Your task to perform on an android device: Open CNN.com Image 0: 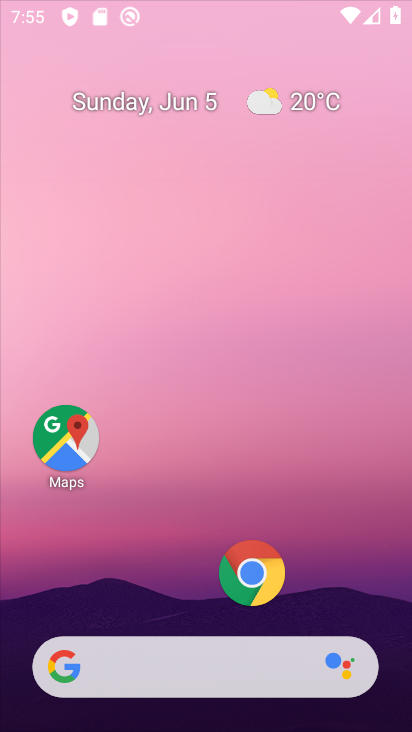
Step 0: click (202, 441)
Your task to perform on an android device: Open CNN.com Image 1: 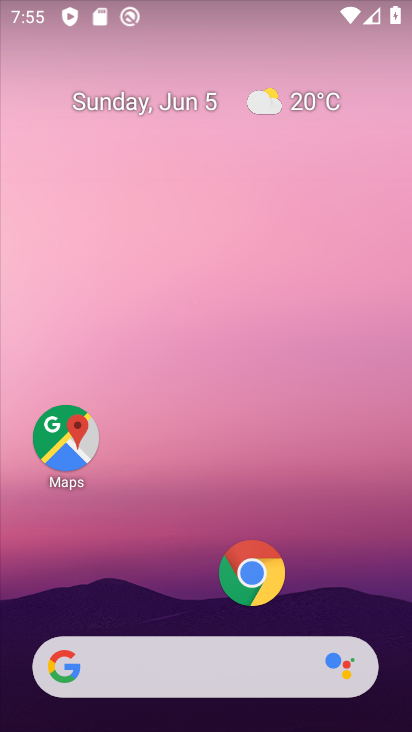
Step 1: click (255, 579)
Your task to perform on an android device: Open CNN.com Image 2: 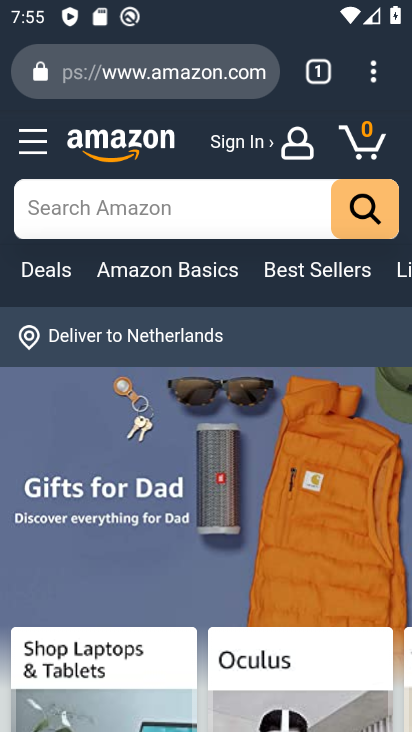
Step 2: click (320, 69)
Your task to perform on an android device: Open CNN.com Image 3: 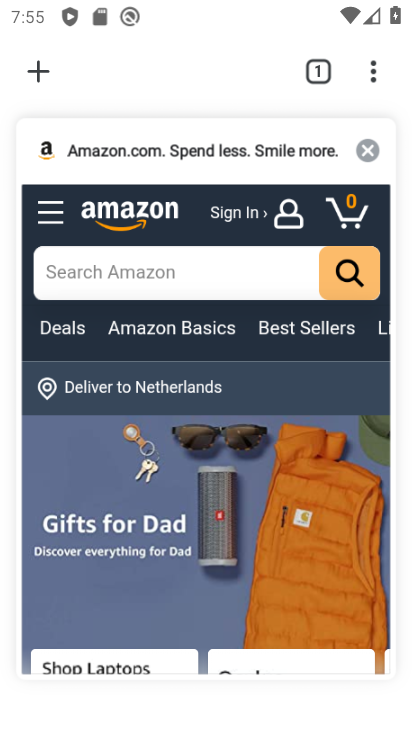
Step 3: click (367, 159)
Your task to perform on an android device: Open CNN.com Image 4: 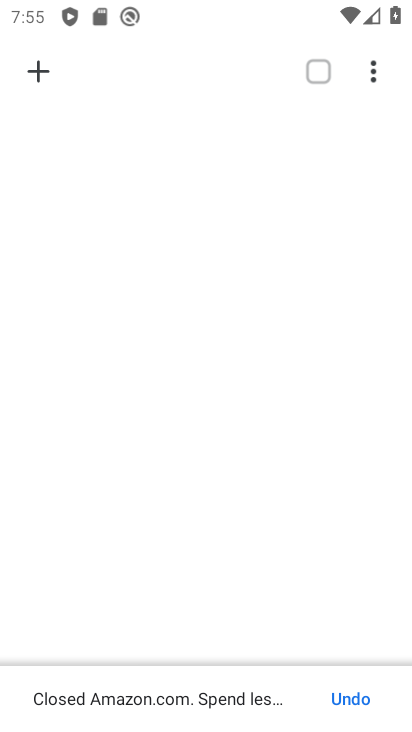
Step 4: click (41, 72)
Your task to perform on an android device: Open CNN.com Image 5: 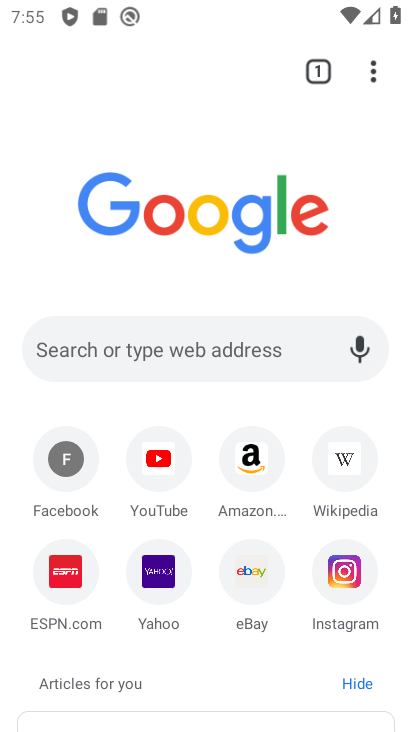
Step 5: click (199, 355)
Your task to perform on an android device: Open CNN.com Image 6: 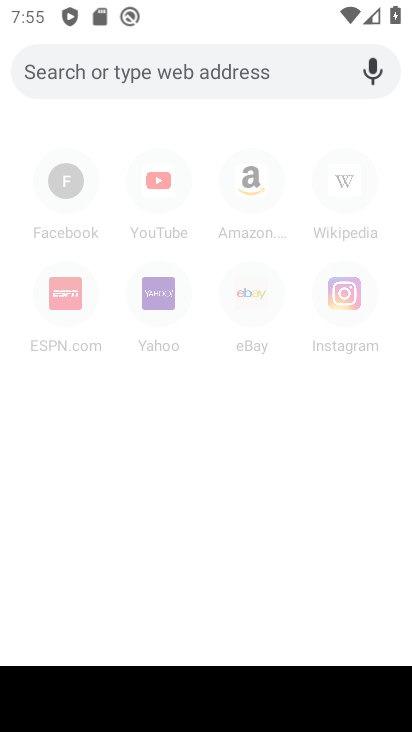
Step 6: type "cnn.com"
Your task to perform on an android device: Open CNN.com Image 7: 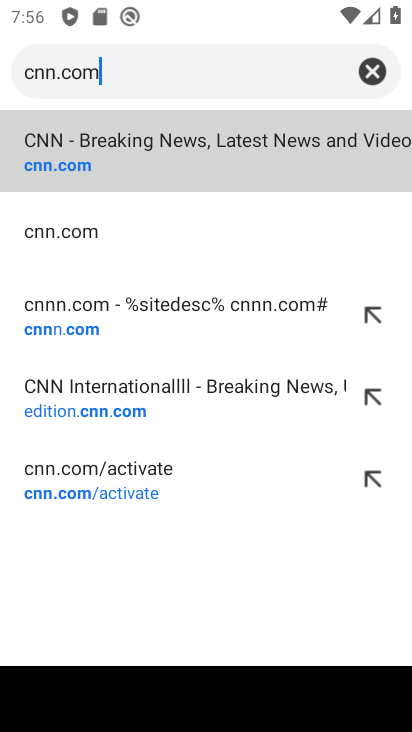
Step 7: click (118, 136)
Your task to perform on an android device: Open CNN.com Image 8: 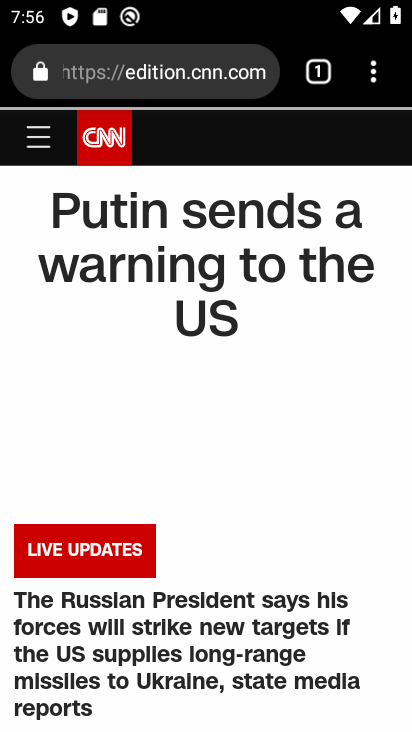
Step 8: task complete